Your task to perform on an android device: turn off data saver in the chrome app Image 0: 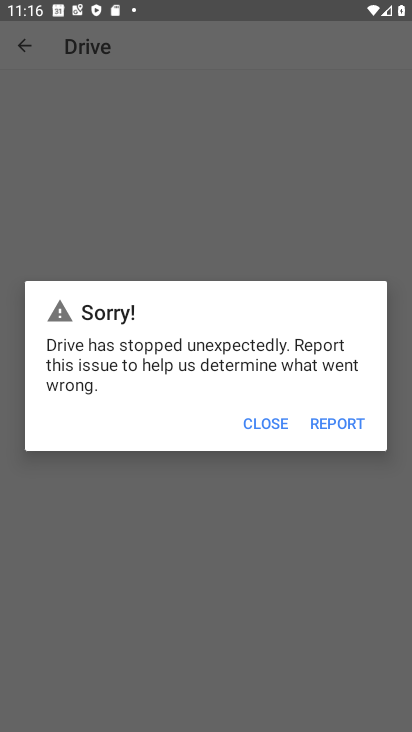
Step 0: press home button
Your task to perform on an android device: turn off data saver in the chrome app Image 1: 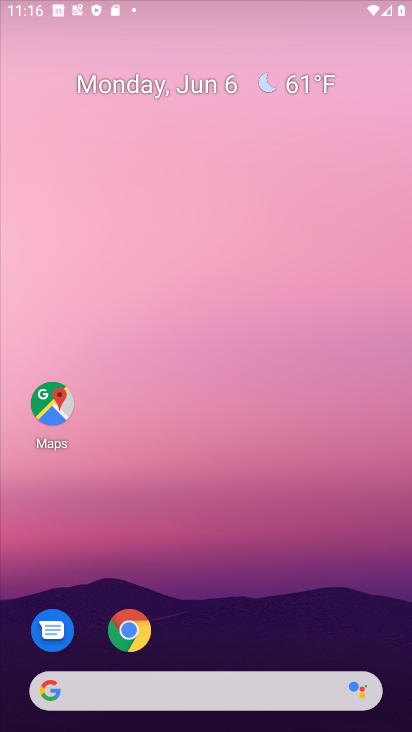
Step 1: drag from (369, 618) to (319, 198)
Your task to perform on an android device: turn off data saver in the chrome app Image 2: 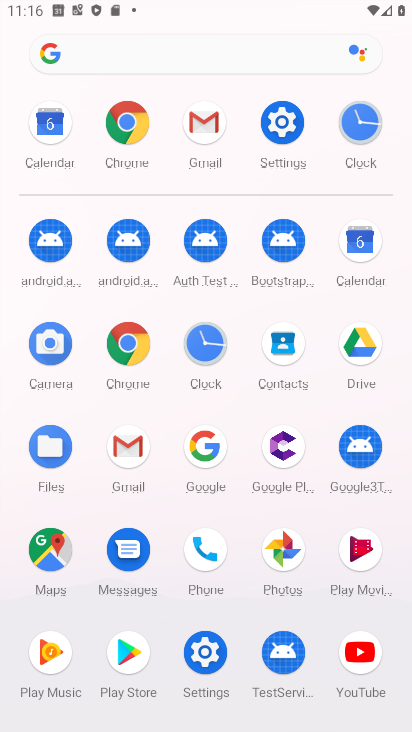
Step 2: click (122, 351)
Your task to perform on an android device: turn off data saver in the chrome app Image 3: 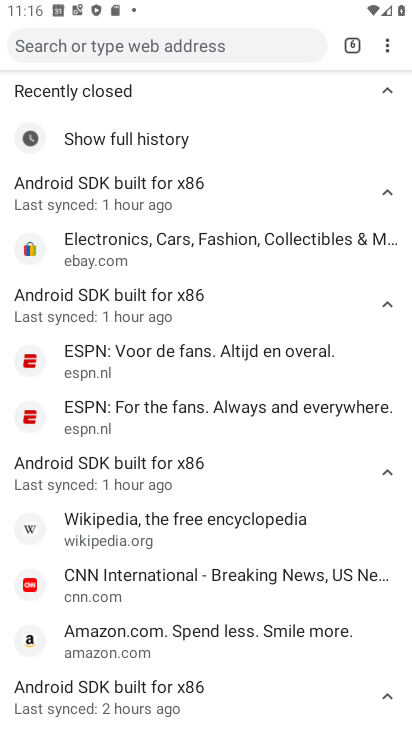
Step 3: drag from (394, 52) to (235, 386)
Your task to perform on an android device: turn off data saver in the chrome app Image 4: 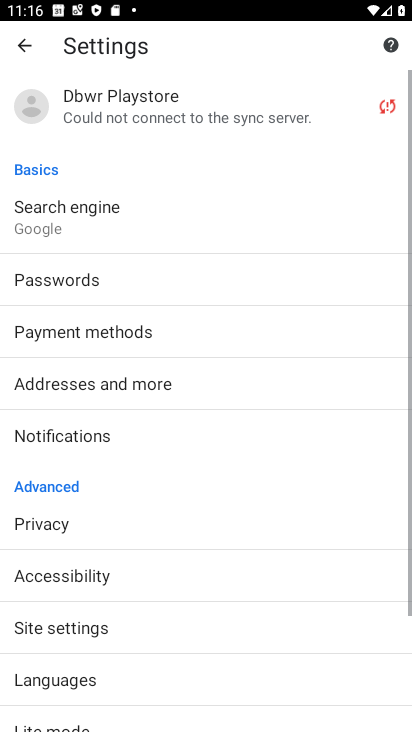
Step 4: drag from (122, 690) to (169, 483)
Your task to perform on an android device: turn off data saver in the chrome app Image 5: 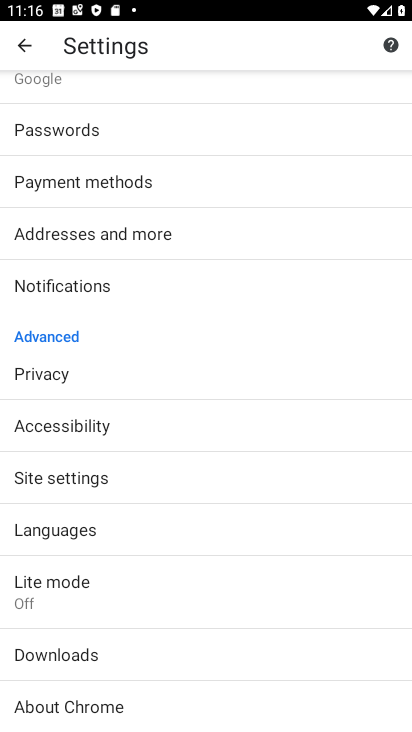
Step 5: drag from (120, 635) to (152, 460)
Your task to perform on an android device: turn off data saver in the chrome app Image 6: 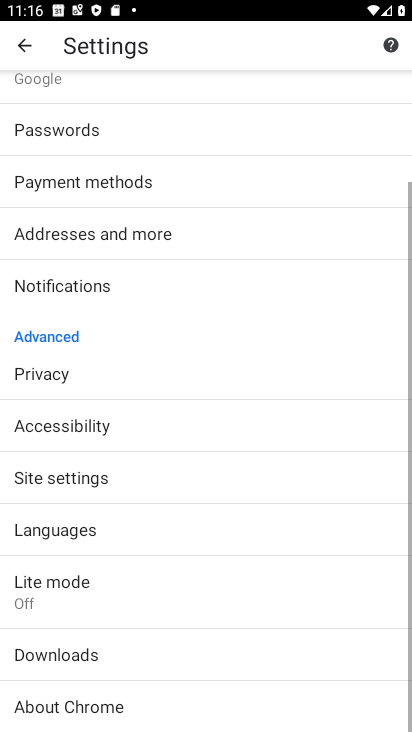
Step 6: click (73, 590)
Your task to perform on an android device: turn off data saver in the chrome app Image 7: 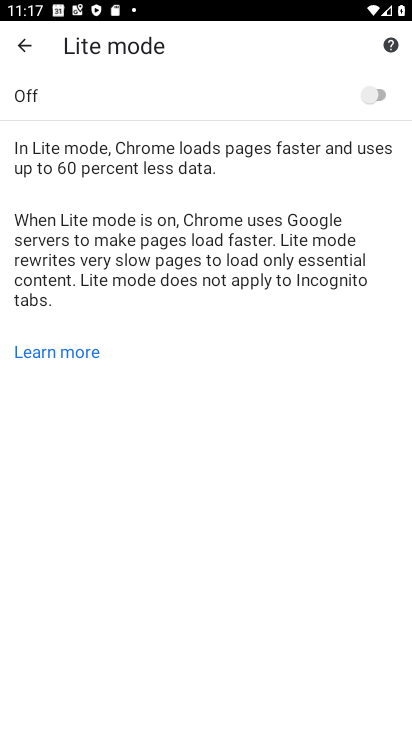
Step 7: task complete